Your task to perform on an android device: install app "Nova Launcher" Image 0: 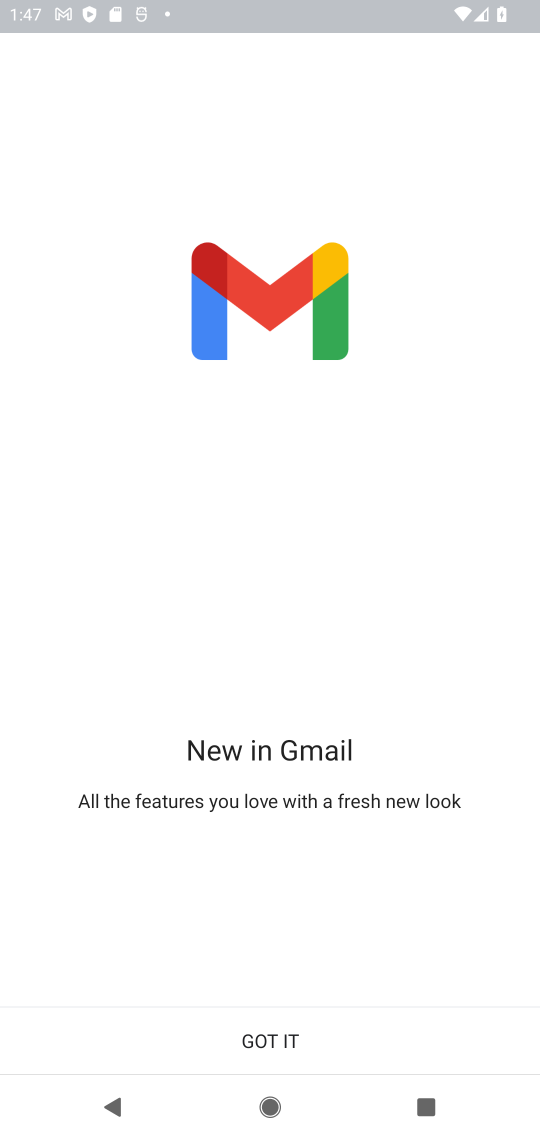
Step 0: press home button
Your task to perform on an android device: install app "Nova Launcher" Image 1: 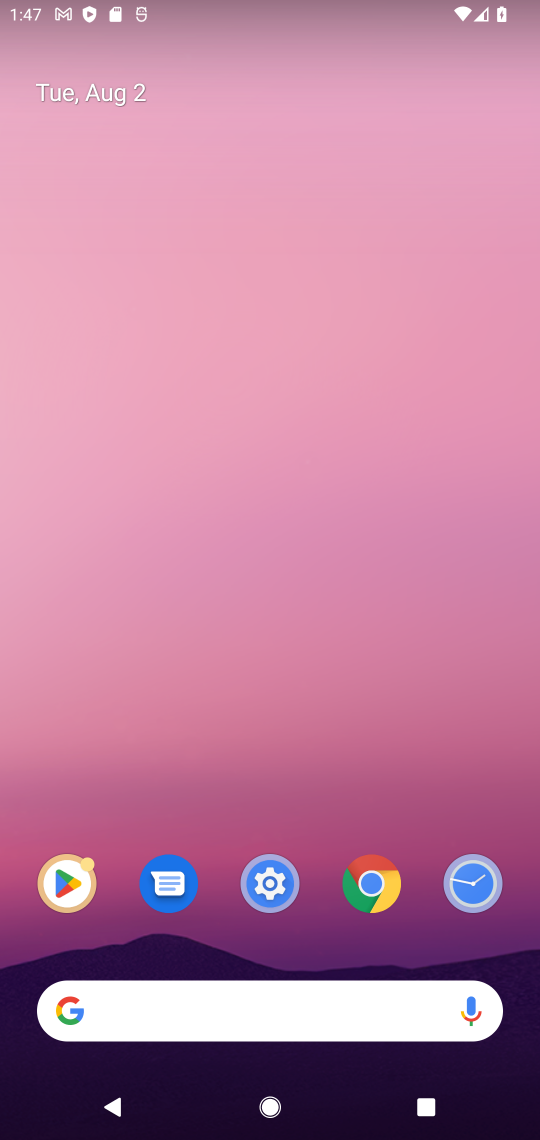
Step 1: click (59, 873)
Your task to perform on an android device: install app "Nova Launcher" Image 2: 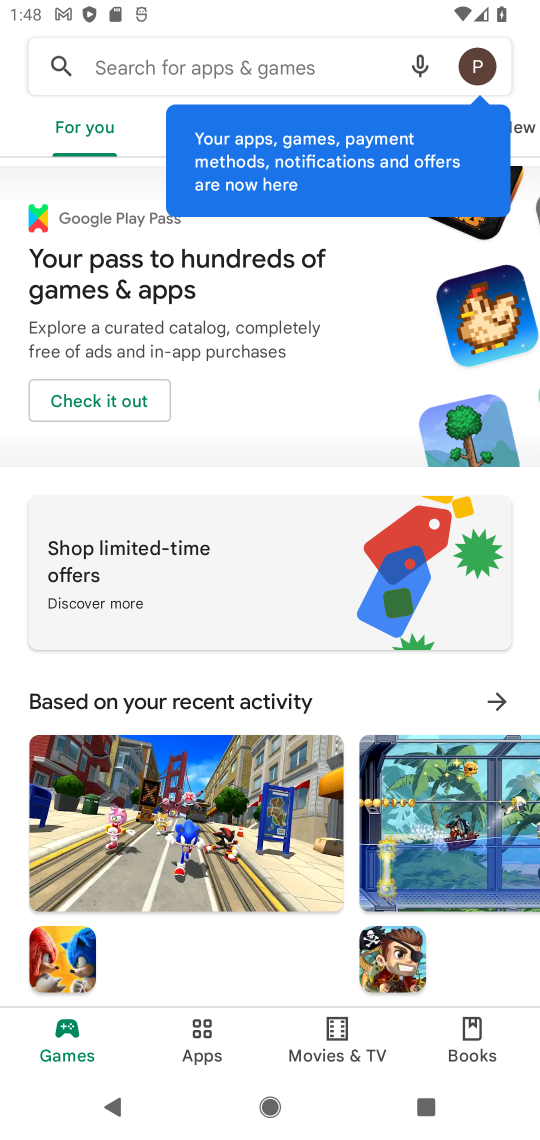
Step 2: click (56, 58)
Your task to perform on an android device: install app "Nova Launcher" Image 3: 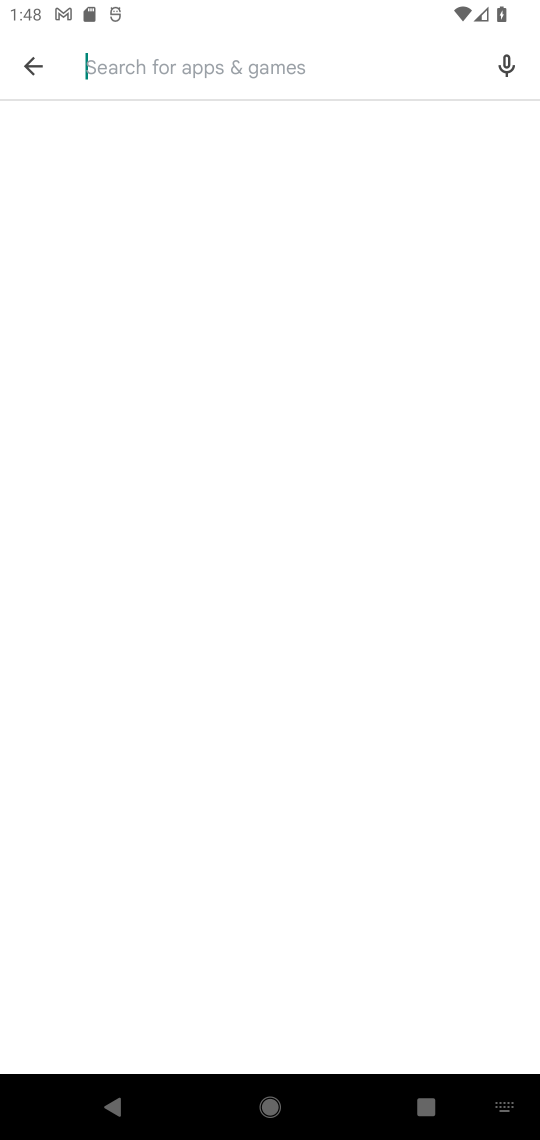
Step 3: type "Nova Launcher"
Your task to perform on an android device: install app "Nova Launcher" Image 4: 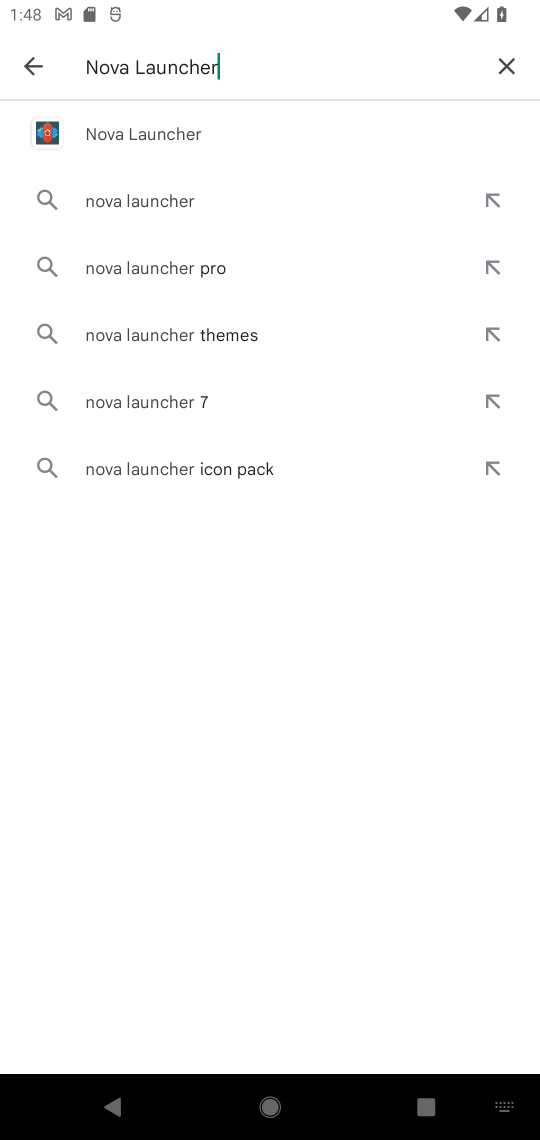
Step 4: click (133, 133)
Your task to perform on an android device: install app "Nova Launcher" Image 5: 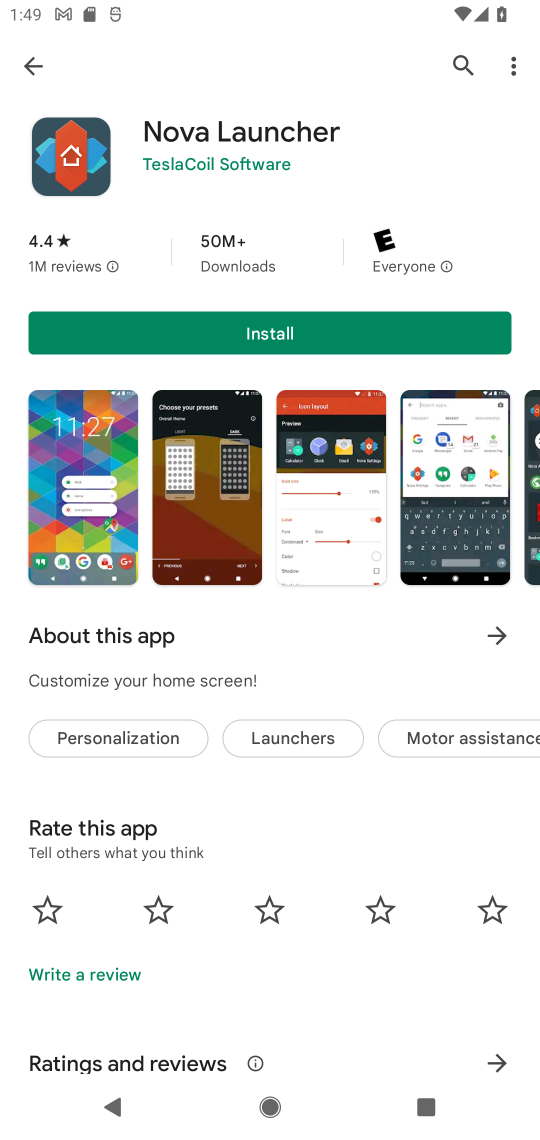
Step 5: click (391, 333)
Your task to perform on an android device: install app "Nova Launcher" Image 6: 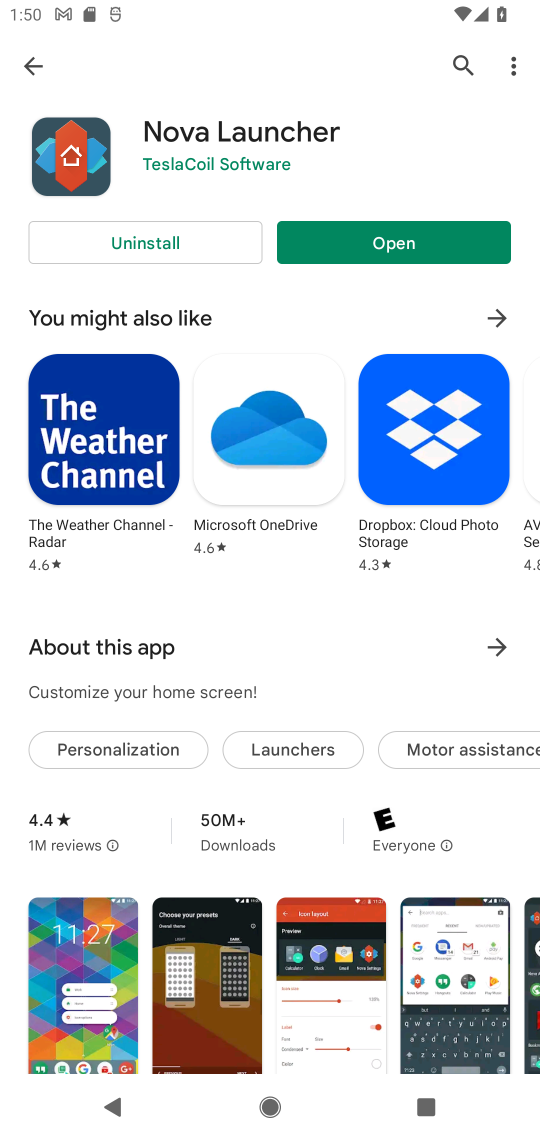
Step 6: task complete